Your task to perform on an android device: Open location settings Image 0: 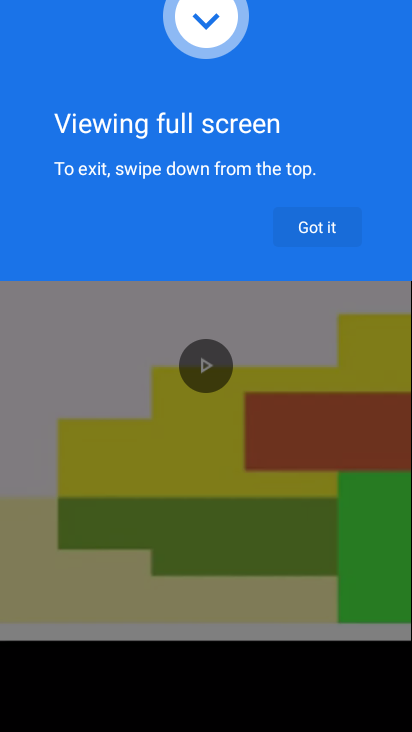
Step 0: press back button
Your task to perform on an android device: Open location settings Image 1: 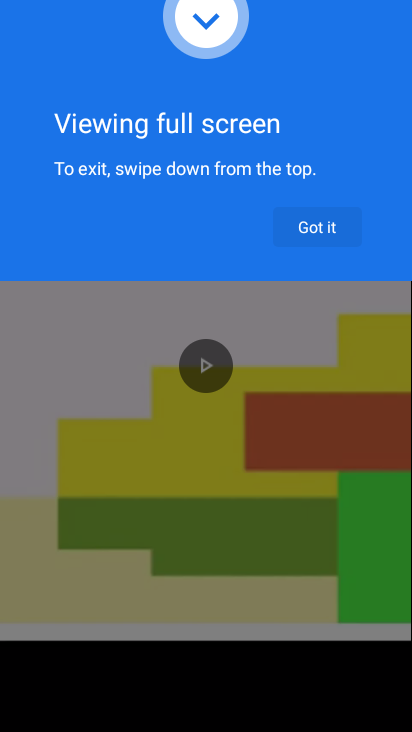
Step 1: press back button
Your task to perform on an android device: Open location settings Image 2: 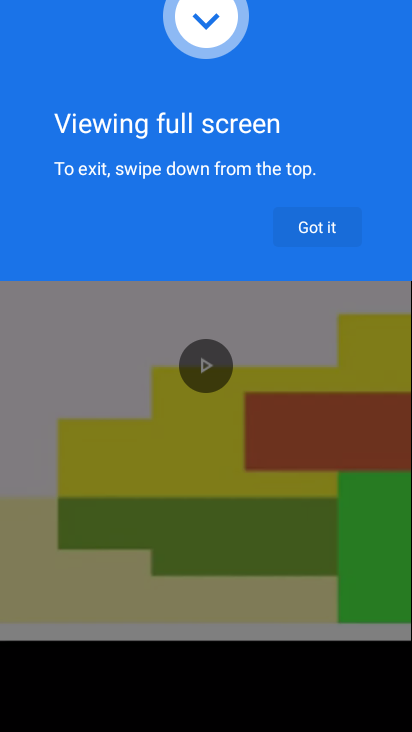
Step 2: press back button
Your task to perform on an android device: Open location settings Image 3: 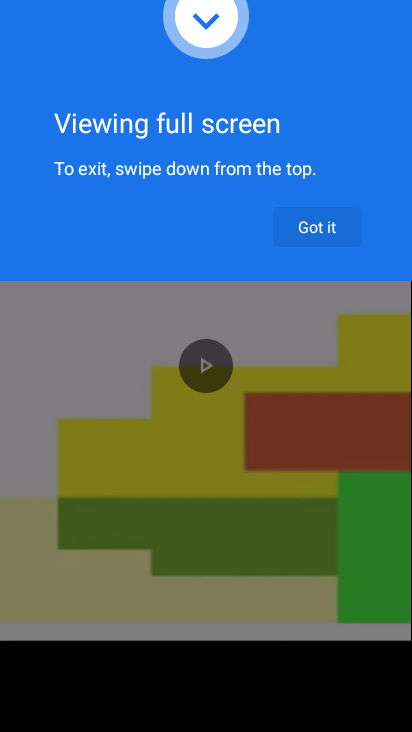
Step 3: press home button
Your task to perform on an android device: Open location settings Image 4: 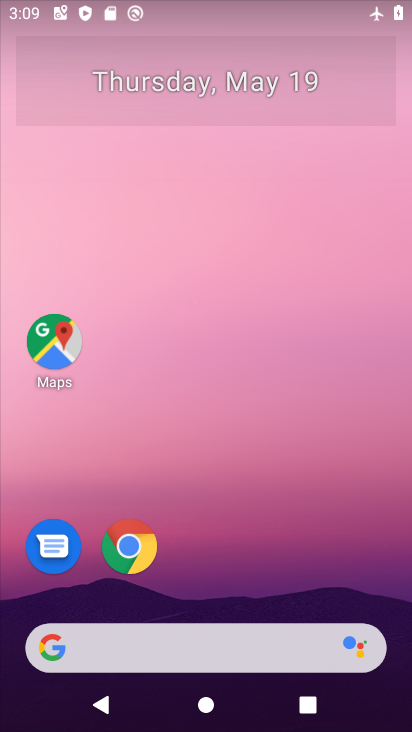
Step 4: drag from (257, 549) to (241, 179)
Your task to perform on an android device: Open location settings Image 5: 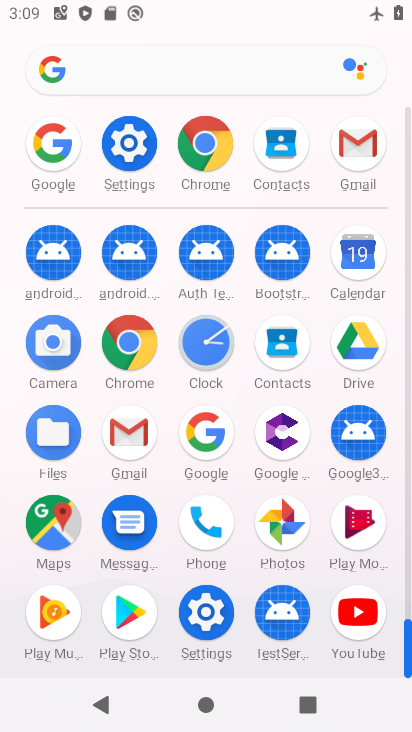
Step 5: click (128, 142)
Your task to perform on an android device: Open location settings Image 6: 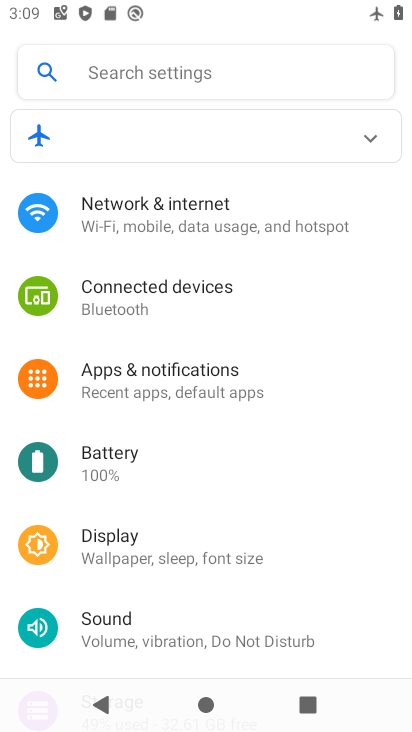
Step 6: drag from (130, 445) to (191, 339)
Your task to perform on an android device: Open location settings Image 7: 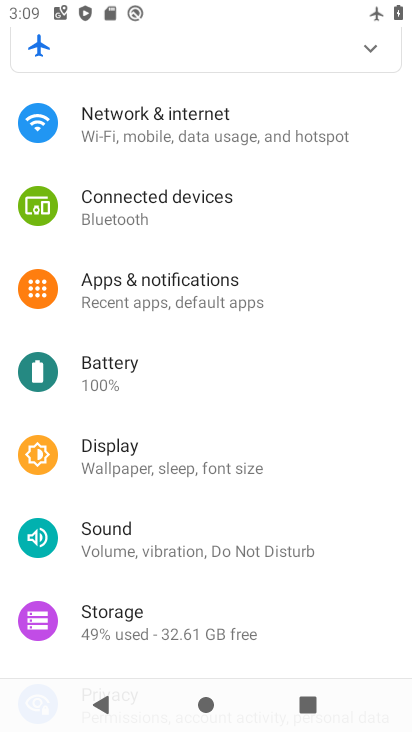
Step 7: drag from (141, 506) to (186, 411)
Your task to perform on an android device: Open location settings Image 8: 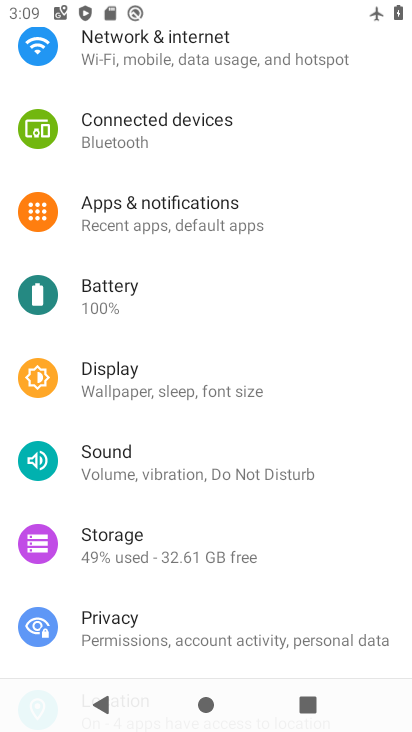
Step 8: drag from (150, 512) to (176, 433)
Your task to perform on an android device: Open location settings Image 9: 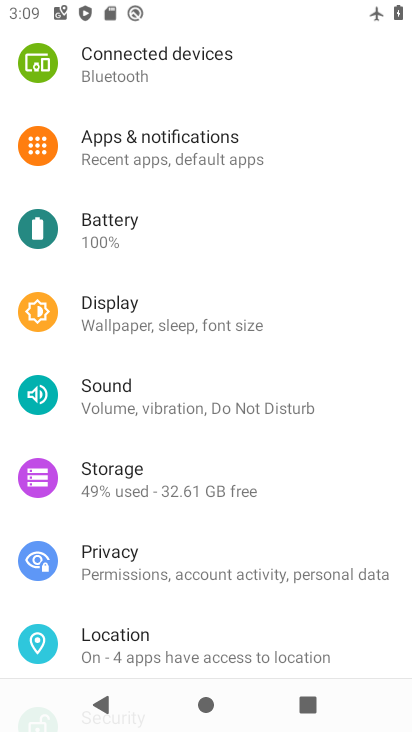
Step 9: drag from (143, 526) to (204, 425)
Your task to perform on an android device: Open location settings Image 10: 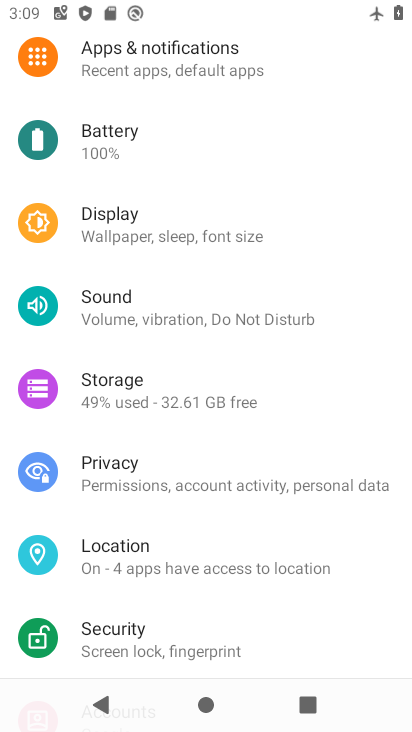
Step 10: click (120, 565)
Your task to perform on an android device: Open location settings Image 11: 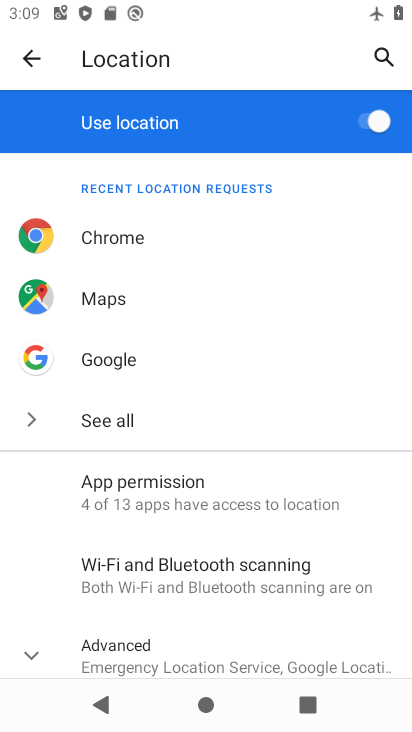
Step 11: task complete